Your task to perform on an android device: open a bookmark in the chrome app Image 0: 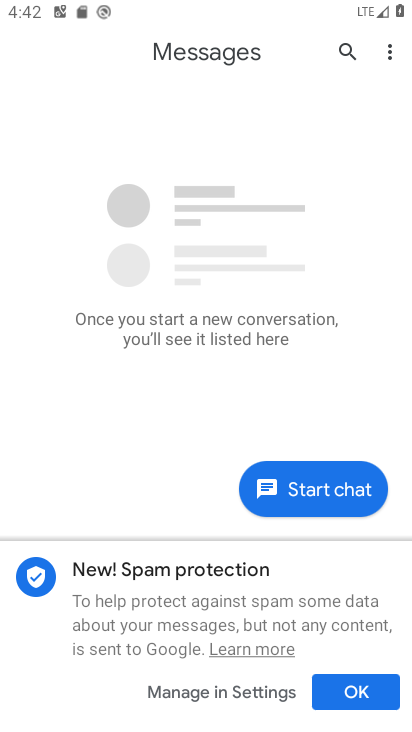
Step 0: press home button
Your task to perform on an android device: open a bookmark in the chrome app Image 1: 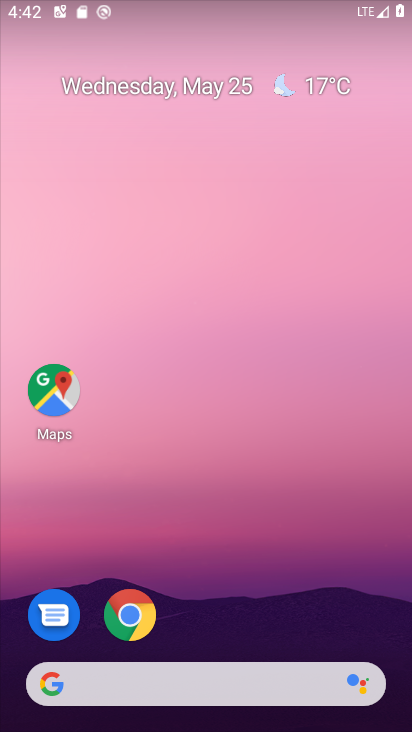
Step 1: click (133, 612)
Your task to perform on an android device: open a bookmark in the chrome app Image 2: 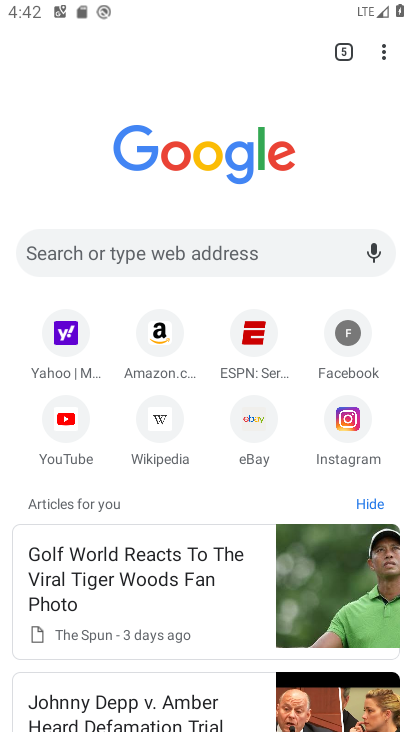
Step 2: click (388, 55)
Your task to perform on an android device: open a bookmark in the chrome app Image 3: 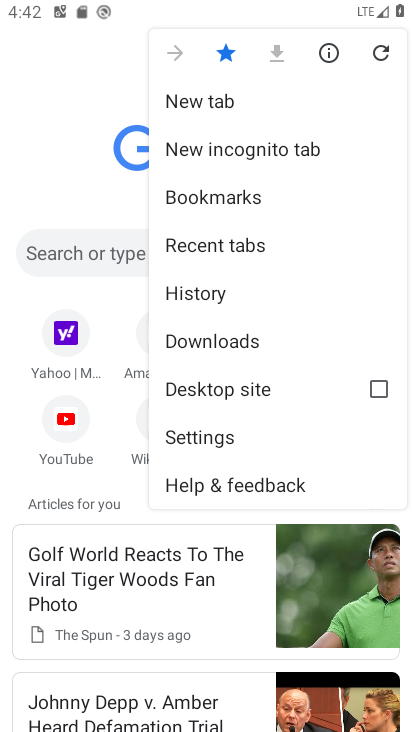
Step 3: click (221, 199)
Your task to perform on an android device: open a bookmark in the chrome app Image 4: 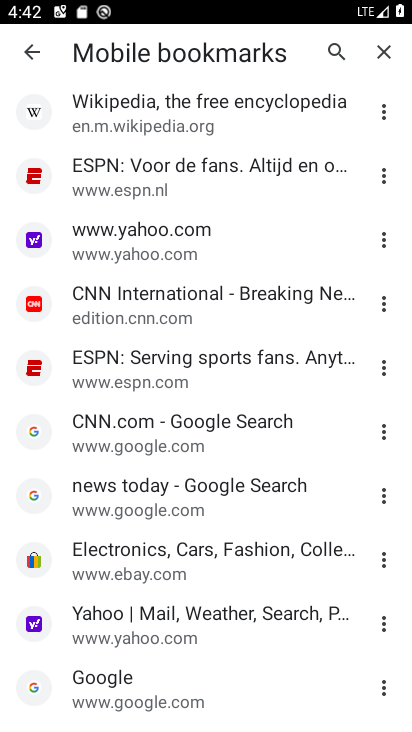
Step 4: click (165, 211)
Your task to perform on an android device: open a bookmark in the chrome app Image 5: 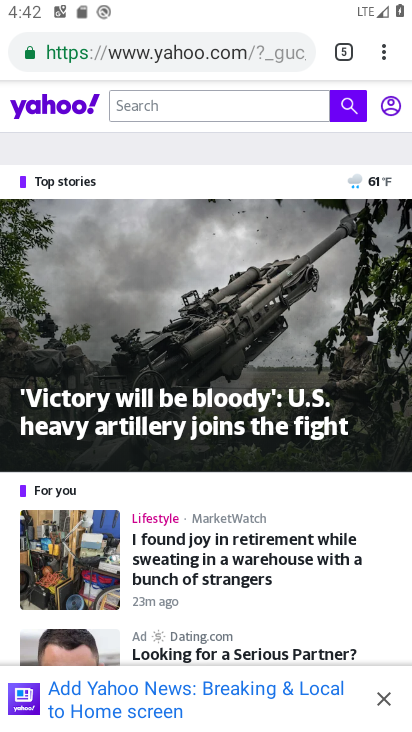
Step 5: task complete